Your task to perform on an android device: Turn on the flashlight Image 0: 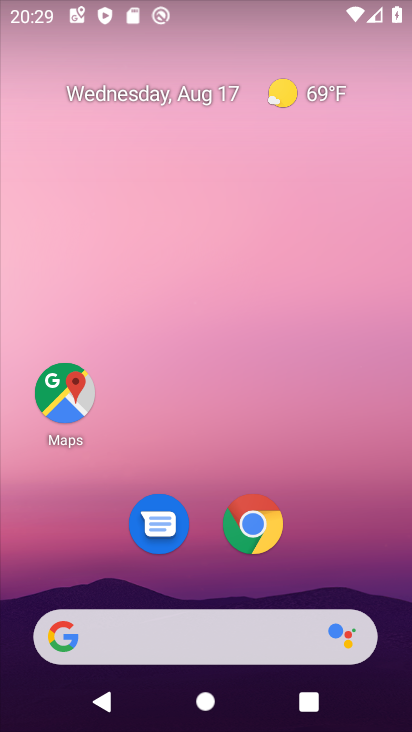
Step 0: drag from (329, 508) to (334, 17)
Your task to perform on an android device: Turn on the flashlight Image 1: 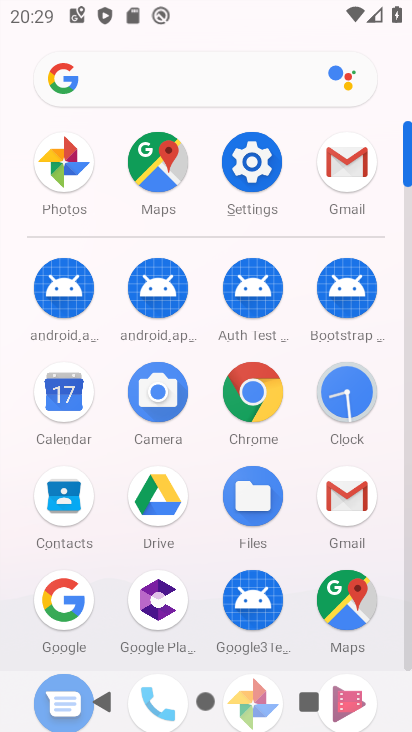
Step 1: click (255, 161)
Your task to perform on an android device: Turn on the flashlight Image 2: 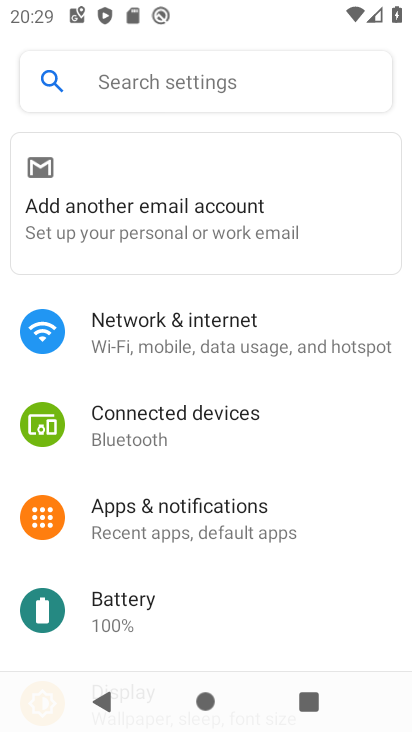
Step 2: click (280, 82)
Your task to perform on an android device: Turn on the flashlight Image 3: 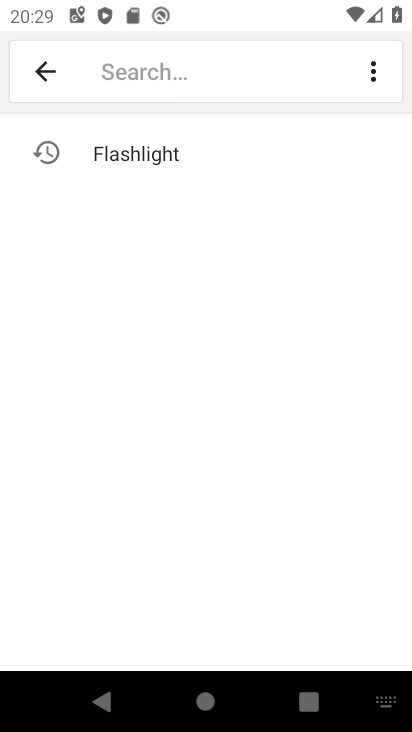
Step 3: click (164, 148)
Your task to perform on an android device: Turn on the flashlight Image 4: 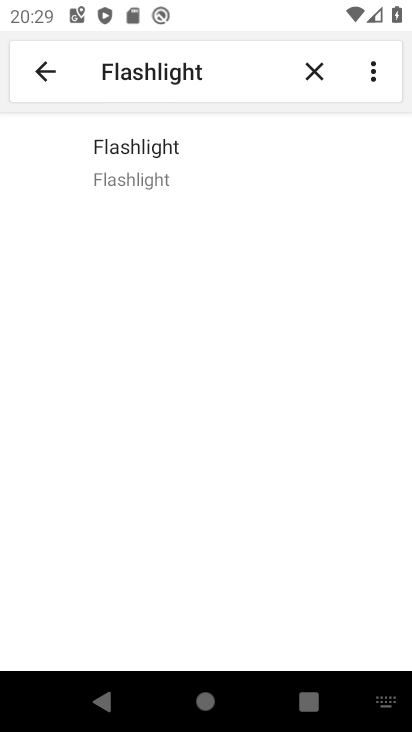
Step 4: click (164, 156)
Your task to perform on an android device: Turn on the flashlight Image 5: 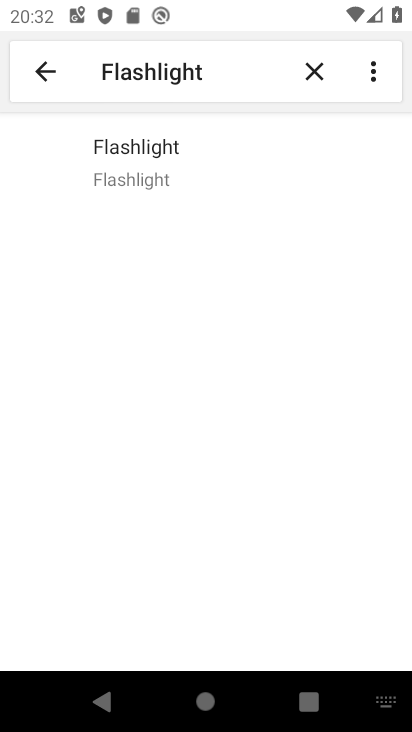
Step 5: task complete